Your task to perform on an android device: Go to privacy settings Image 0: 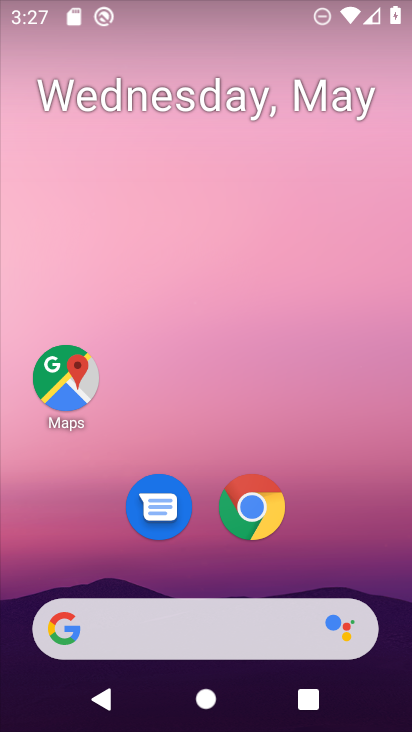
Step 0: drag from (164, 524) to (216, 114)
Your task to perform on an android device: Go to privacy settings Image 1: 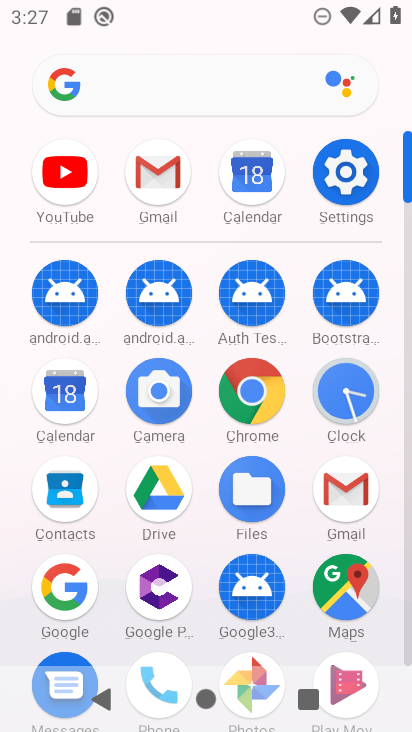
Step 1: click (347, 152)
Your task to perform on an android device: Go to privacy settings Image 2: 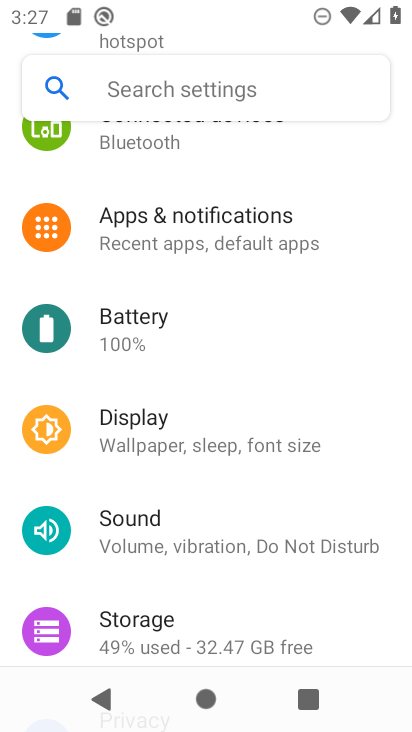
Step 2: drag from (176, 623) to (282, 117)
Your task to perform on an android device: Go to privacy settings Image 3: 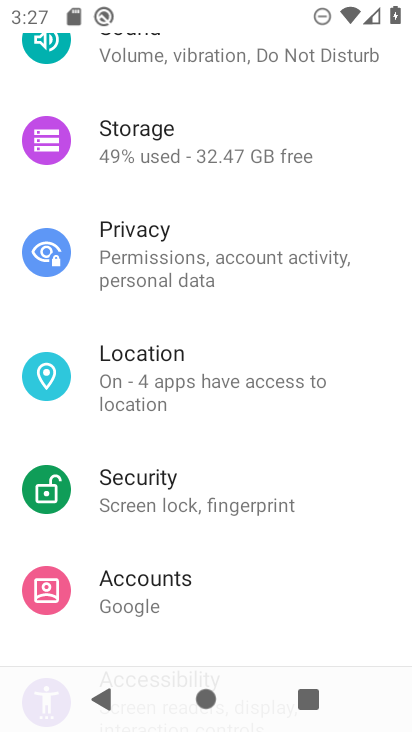
Step 3: click (151, 239)
Your task to perform on an android device: Go to privacy settings Image 4: 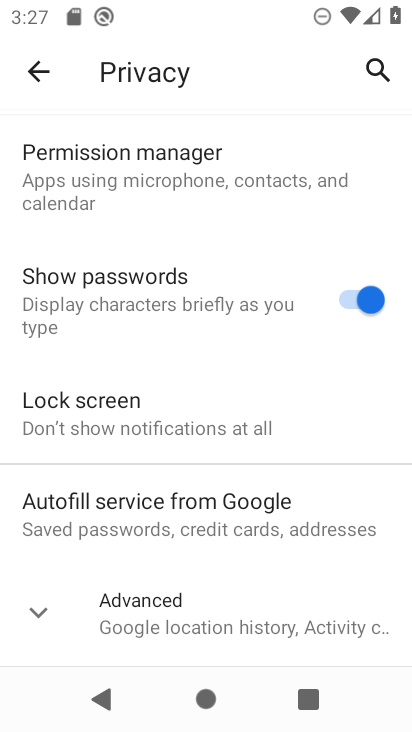
Step 4: task complete